Your task to perform on an android device: Go to sound settings Image 0: 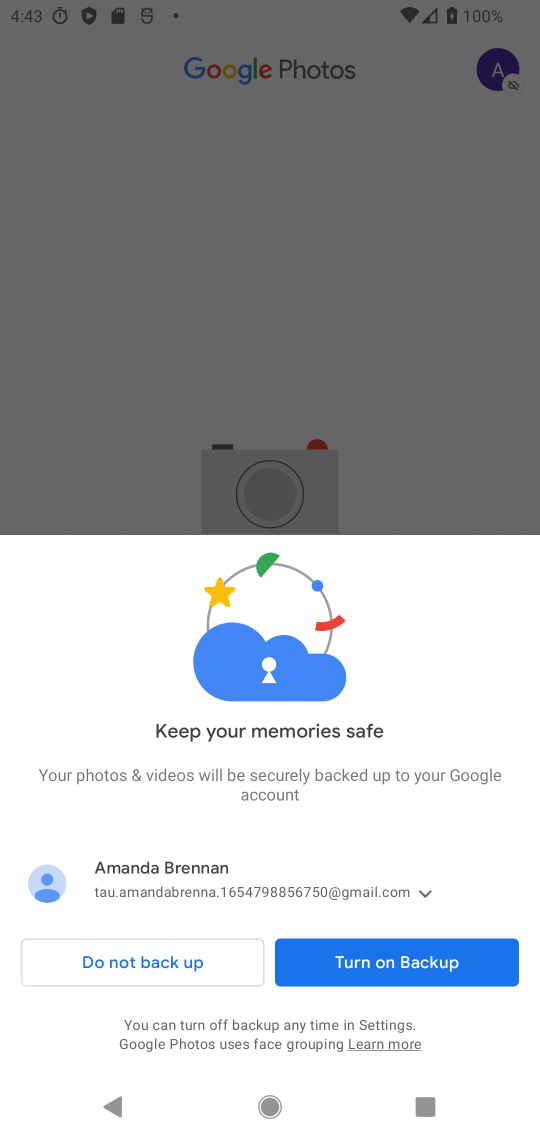
Step 0: press home button
Your task to perform on an android device: Go to sound settings Image 1: 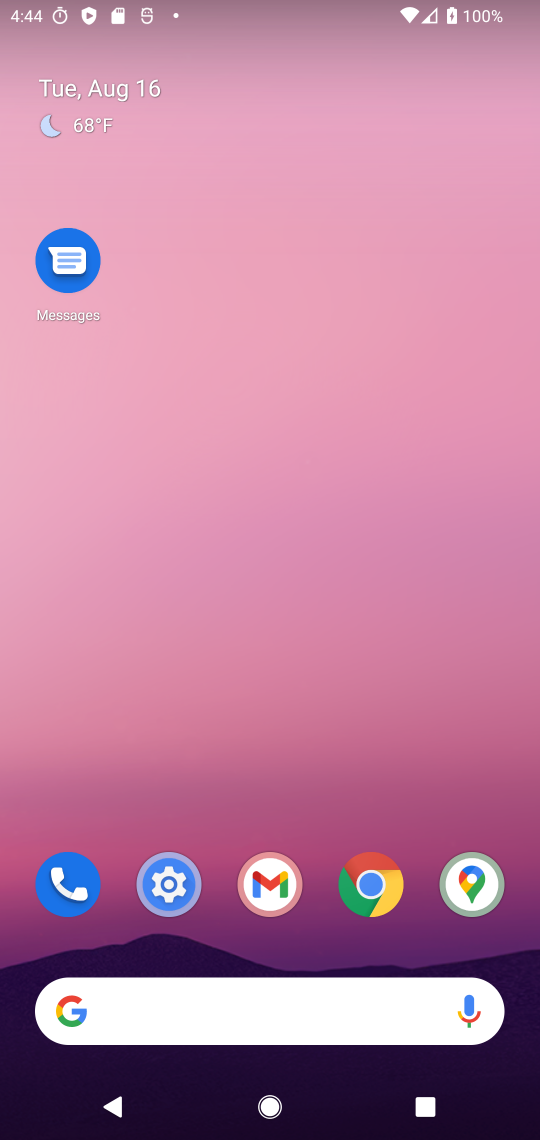
Step 1: click (170, 872)
Your task to perform on an android device: Go to sound settings Image 2: 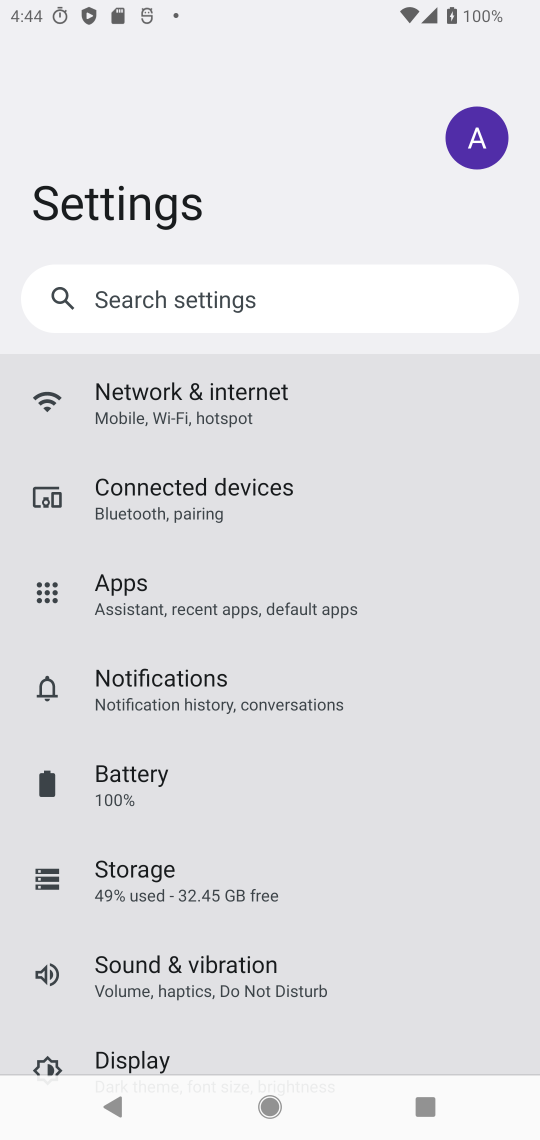
Step 2: click (201, 972)
Your task to perform on an android device: Go to sound settings Image 3: 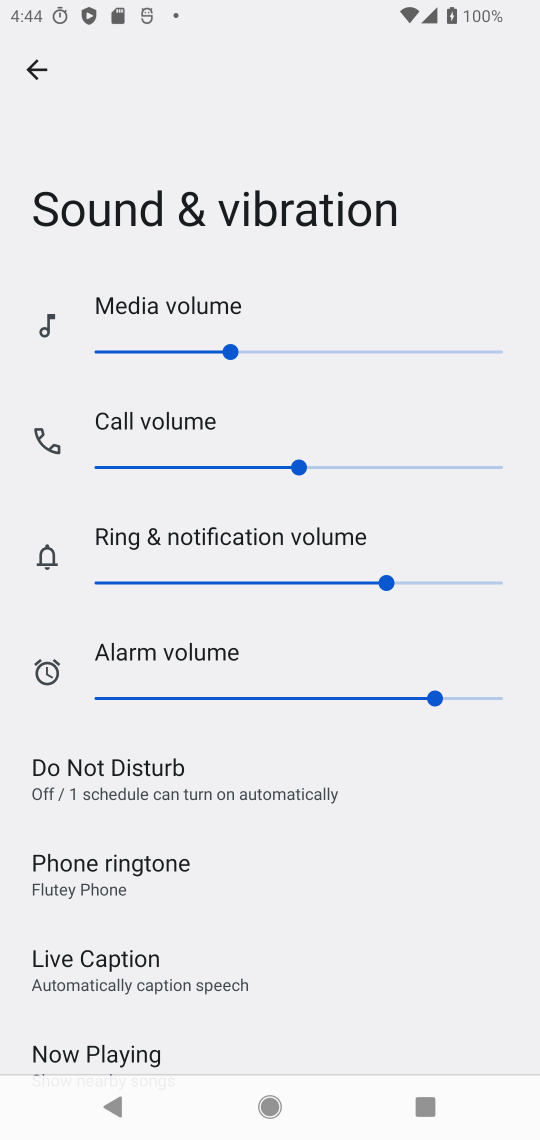
Step 3: task complete